Your task to perform on an android device: Go to Google Image 0: 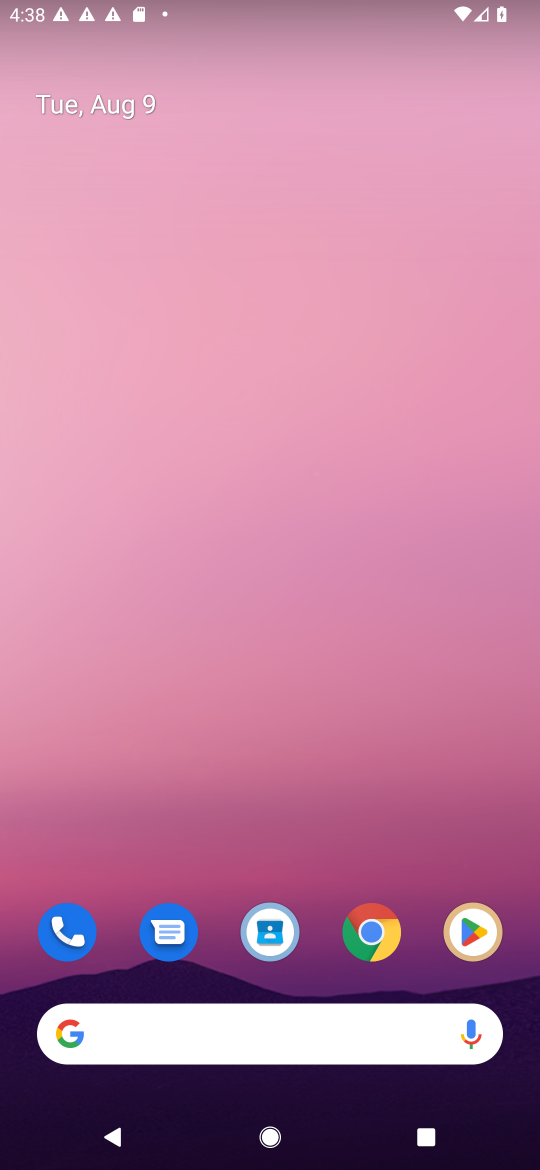
Step 0: click (59, 1043)
Your task to perform on an android device: Go to Google Image 1: 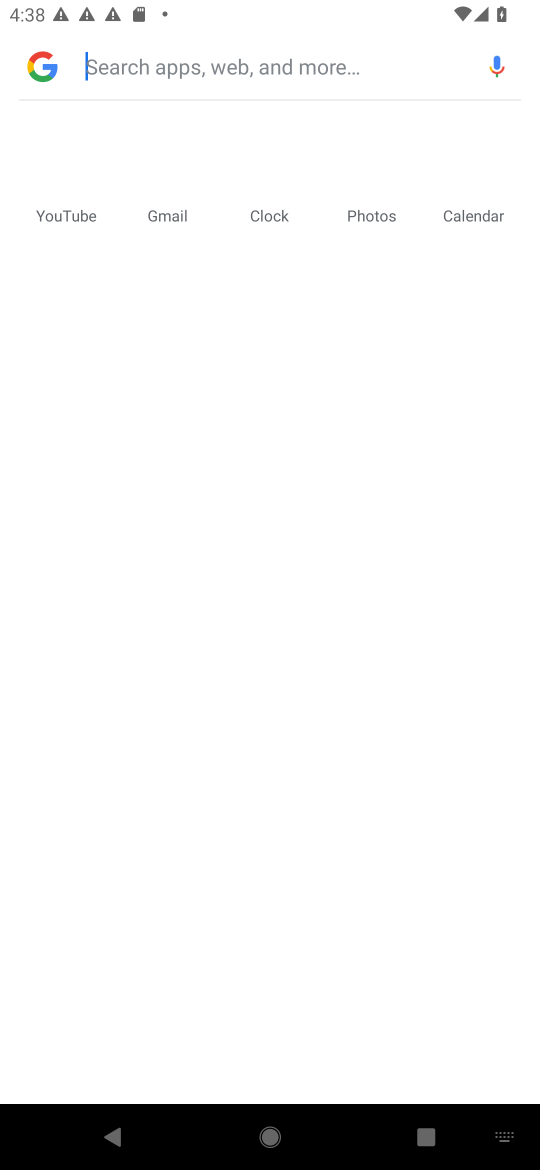
Step 1: click (47, 60)
Your task to perform on an android device: Go to Google Image 2: 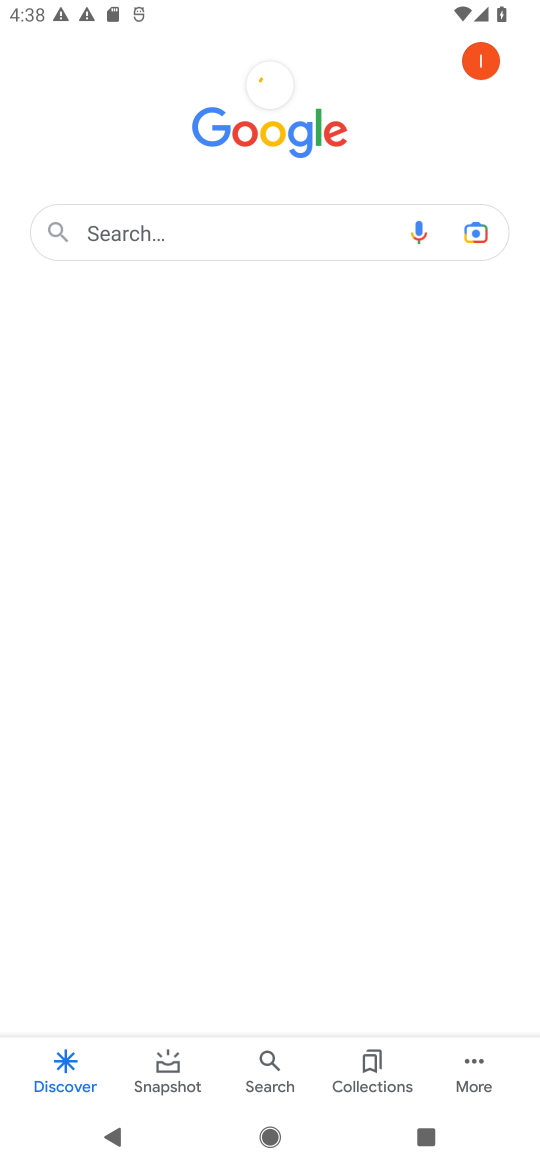
Step 2: task complete